Your task to perform on an android device: change the clock display to digital Image 0: 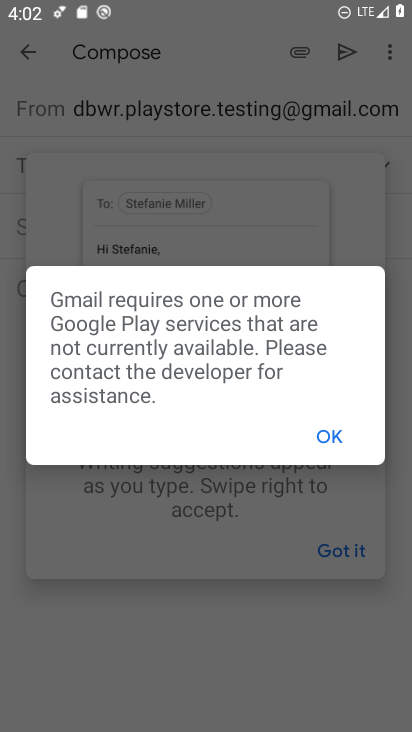
Step 0: press home button
Your task to perform on an android device: change the clock display to digital Image 1: 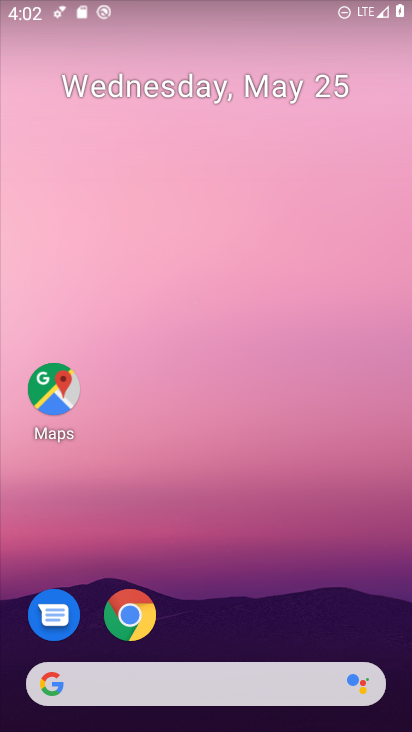
Step 1: drag from (242, 581) to (281, 43)
Your task to perform on an android device: change the clock display to digital Image 2: 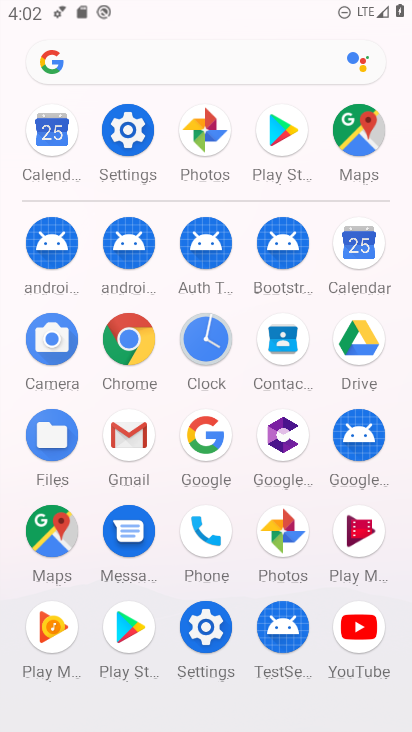
Step 2: click (211, 347)
Your task to perform on an android device: change the clock display to digital Image 3: 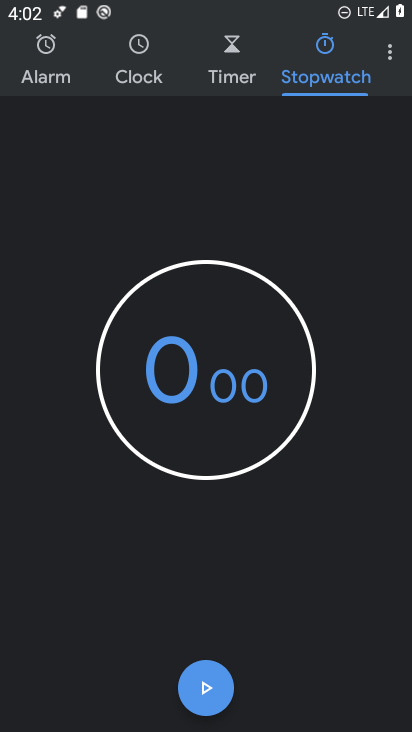
Step 3: click (138, 47)
Your task to perform on an android device: change the clock display to digital Image 4: 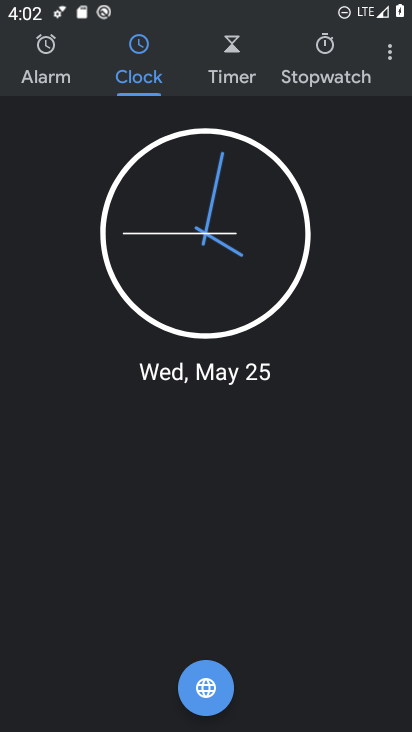
Step 4: click (388, 52)
Your task to perform on an android device: change the clock display to digital Image 5: 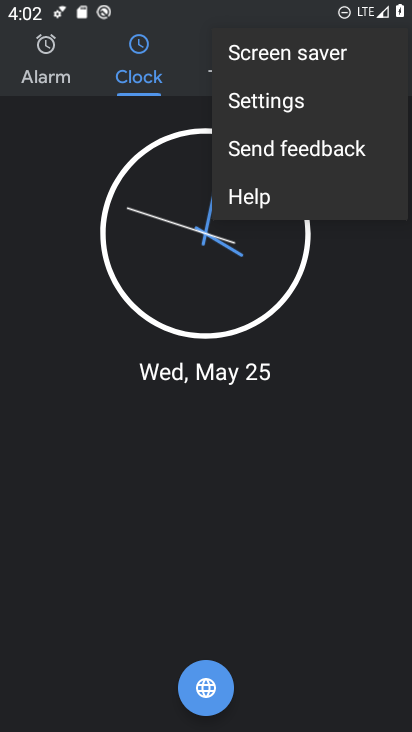
Step 5: click (325, 97)
Your task to perform on an android device: change the clock display to digital Image 6: 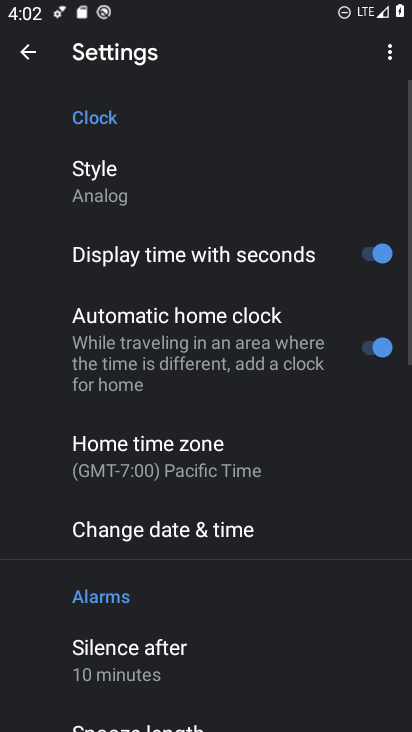
Step 6: click (130, 174)
Your task to perform on an android device: change the clock display to digital Image 7: 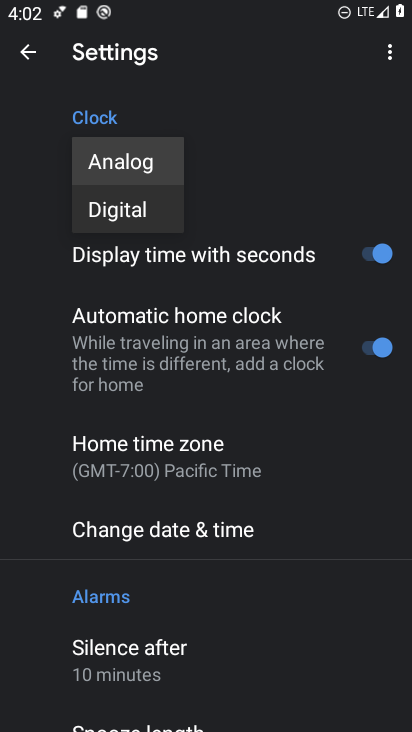
Step 7: click (134, 204)
Your task to perform on an android device: change the clock display to digital Image 8: 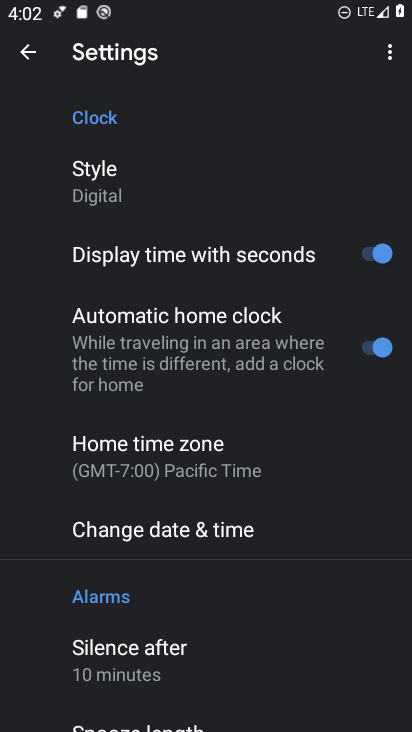
Step 8: task complete